Your task to perform on an android device: Open calendar and show me the fourth week of next month Image 0: 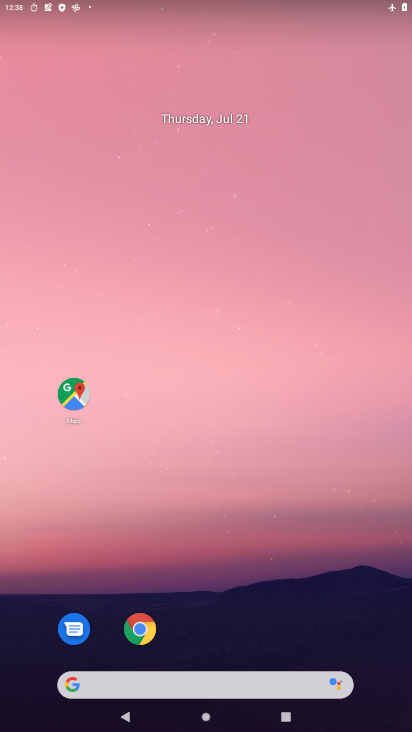
Step 0: drag from (278, 663) to (239, 138)
Your task to perform on an android device: Open calendar and show me the fourth week of next month Image 1: 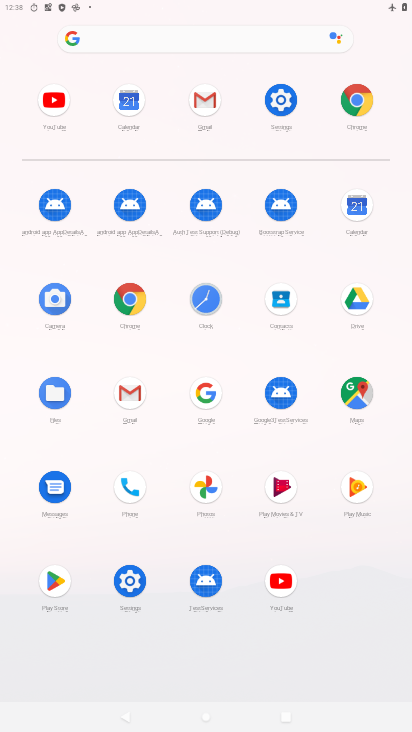
Step 1: click (353, 203)
Your task to perform on an android device: Open calendar and show me the fourth week of next month Image 2: 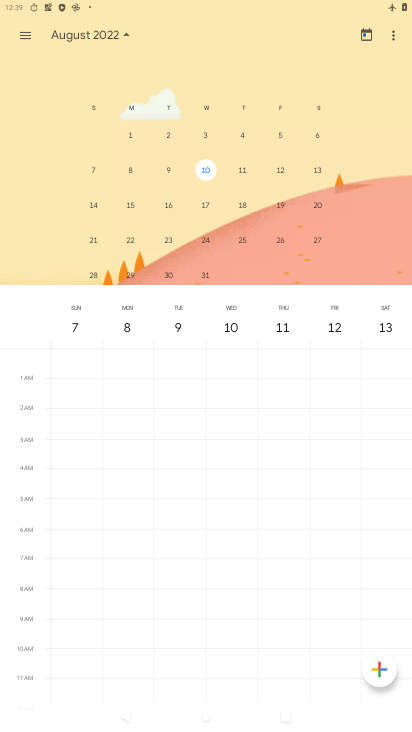
Step 2: click (121, 33)
Your task to perform on an android device: Open calendar and show me the fourth week of next month Image 3: 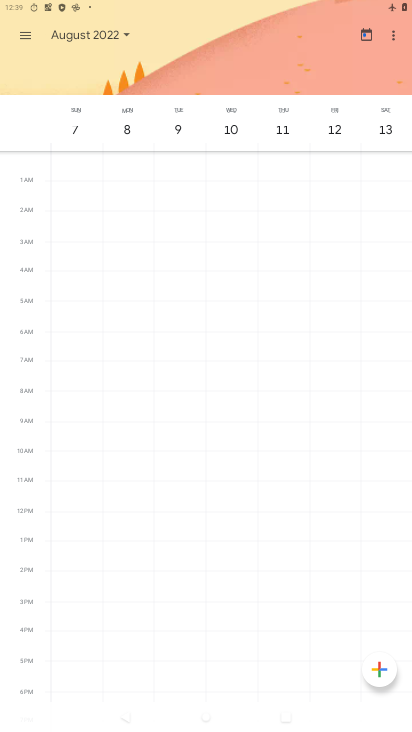
Step 3: click (124, 33)
Your task to perform on an android device: Open calendar and show me the fourth week of next month Image 4: 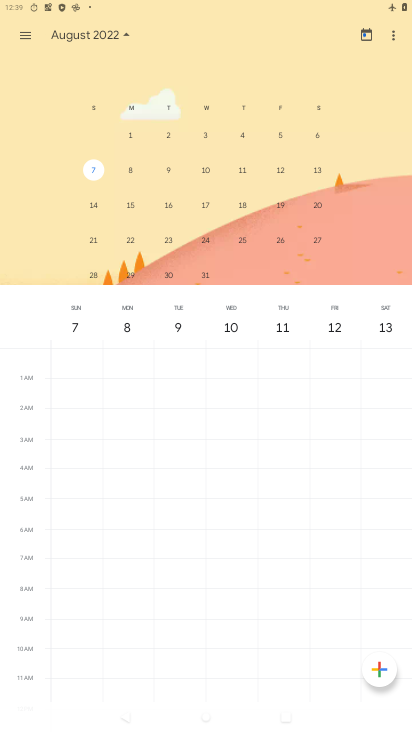
Step 4: click (204, 237)
Your task to perform on an android device: Open calendar and show me the fourth week of next month Image 5: 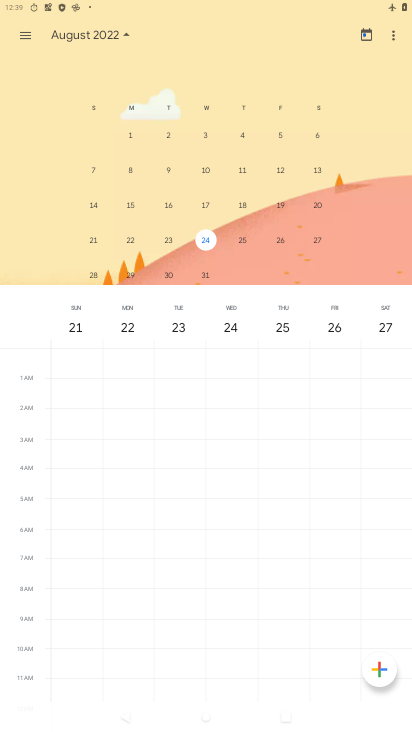
Step 5: task complete